Your task to perform on an android device: What is the recent news? Image 0: 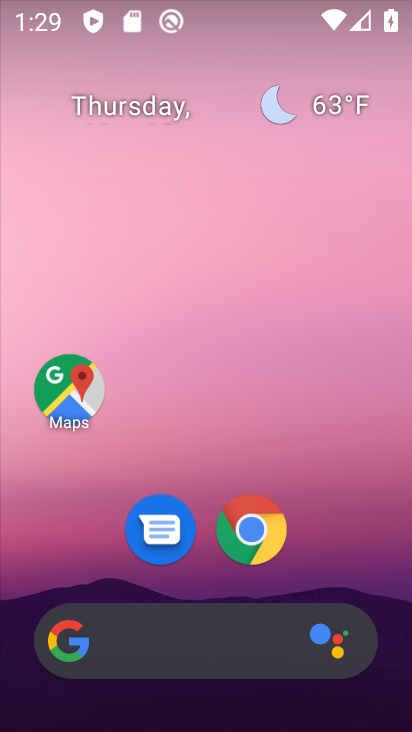
Step 0: drag from (341, 541) to (338, 128)
Your task to perform on an android device: What is the recent news? Image 1: 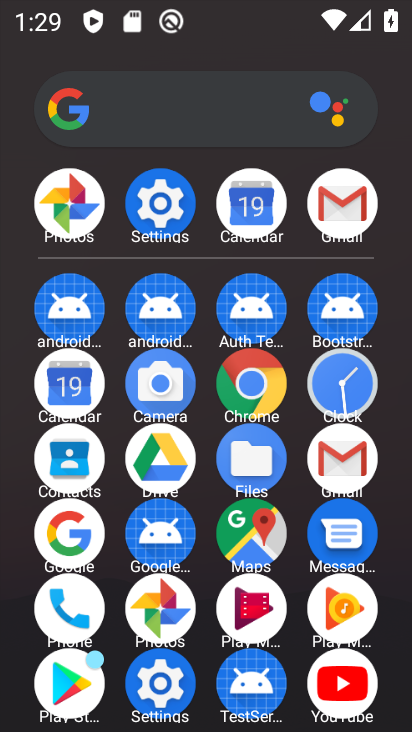
Step 1: click (64, 532)
Your task to perform on an android device: What is the recent news? Image 2: 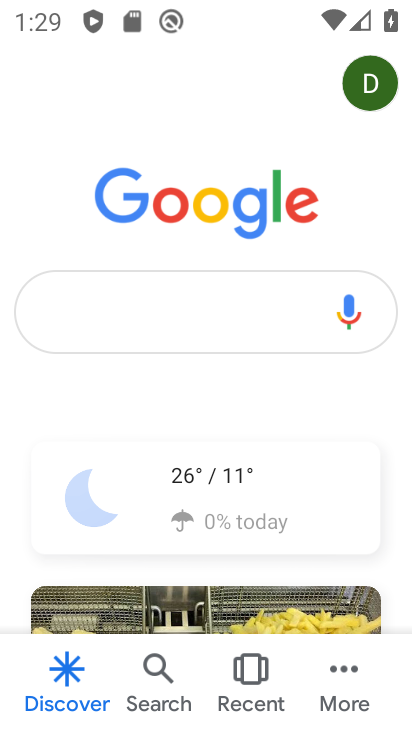
Step 2: click (129, 298)
Your task to perform on an android device: What is the recent news? Image 3: 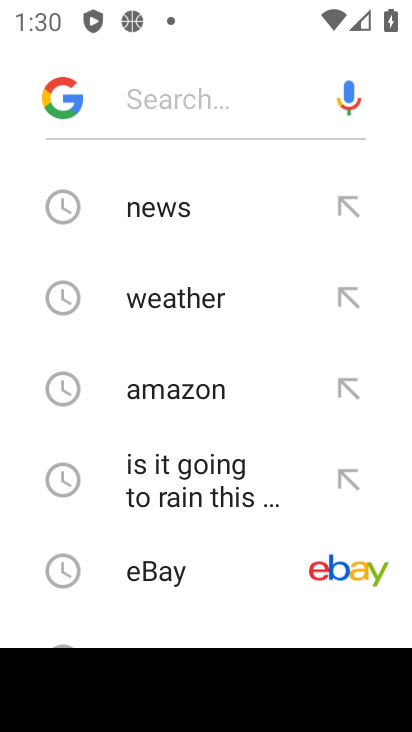
Step 3: type "recent news"
Your task to perform on an android device: What is the recent news? Image 4: 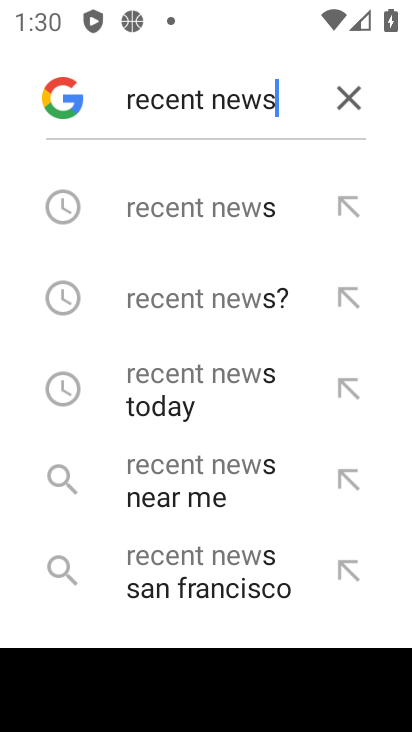
Step 4: type ""
Your task to perform on an android device: What is the recent news? Image 5: 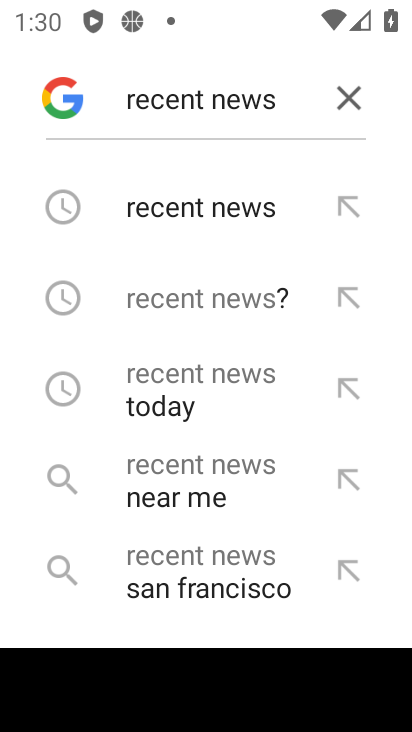
Step 5: click (216, 207)
Your task to perform on an android device: What is the recent news? Image 6: 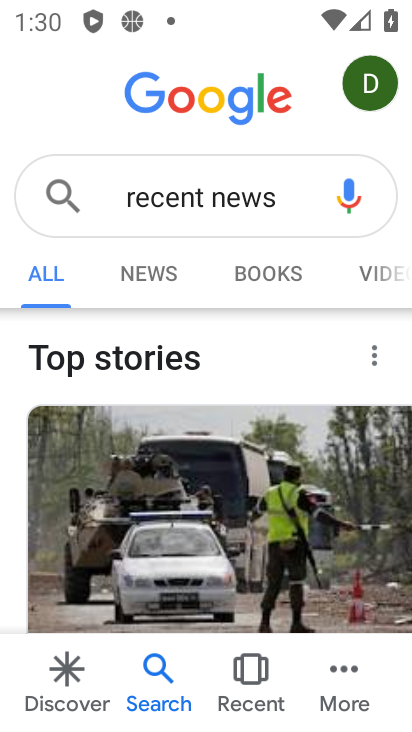
Step 6: task complete